Your task to perform on an android device: When is my next appointment? Image 0: 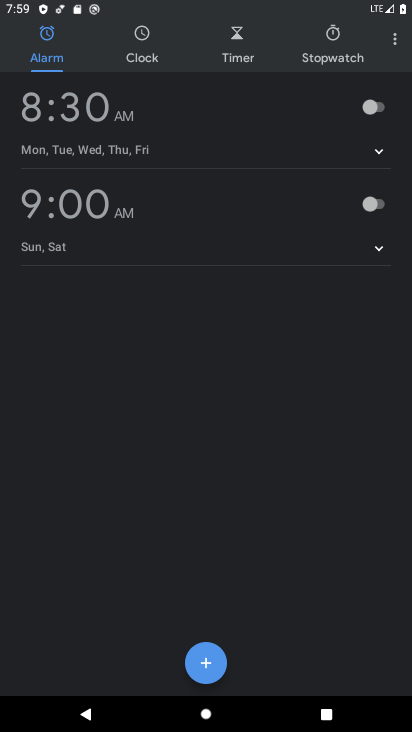
Step 0: press home button
Your task to perform on an android device: When is my next appointment? Image 1: 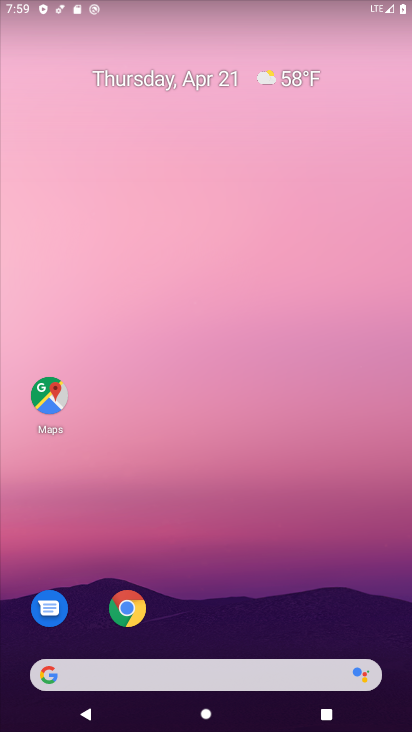
Step 1: drag from (317, 628) to (333, 109)
Your task to perform on an android device: When is my next appointment? Image 2: 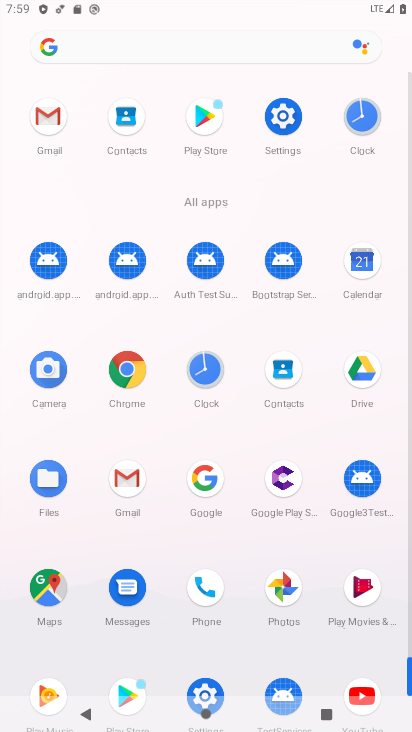
Step 2: click (360, 259)
Your task to perform on an android device: When is my next appointment? Image 3: 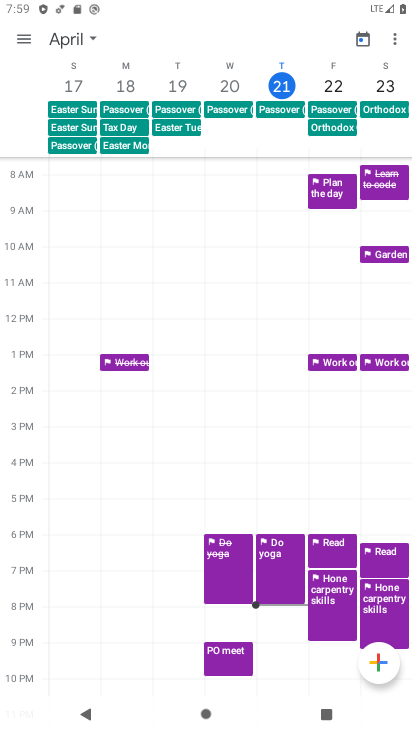
Step 3: click (277, 557)
Your task to perform on an android device: When is my next appointment? Image 4: 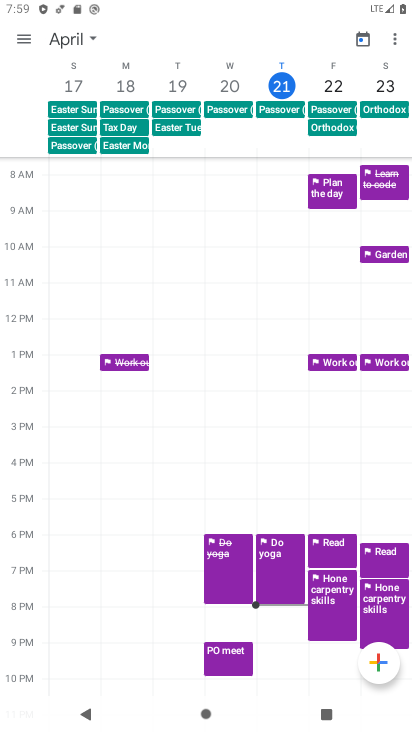
Step 4: click (277, 557)
Your task to perform on an android device: When is my next appointment? Image 5: 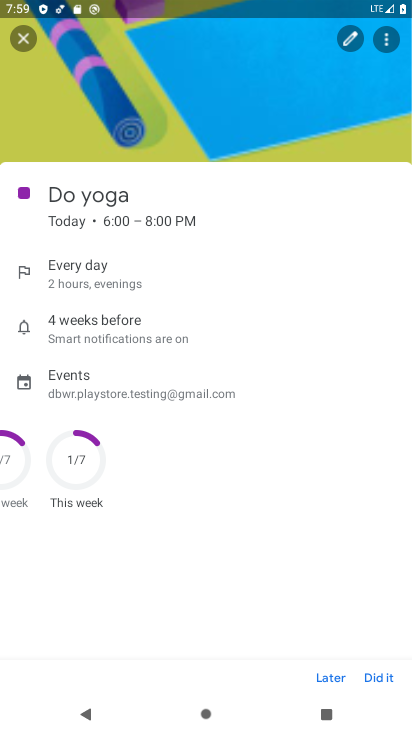
Step 5: task complete